Your task to perform on an android device: turn on showing notifications on the lock screen Image 0: 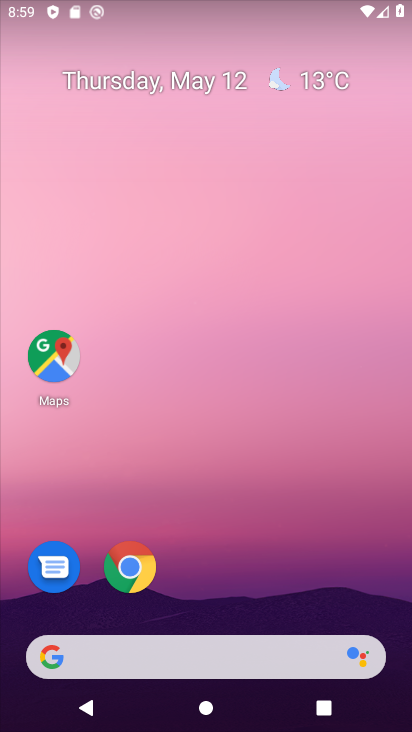
Step 0: press home button
Your task to perform on an android device: turn on showing notifications on the lock screen Image 1: 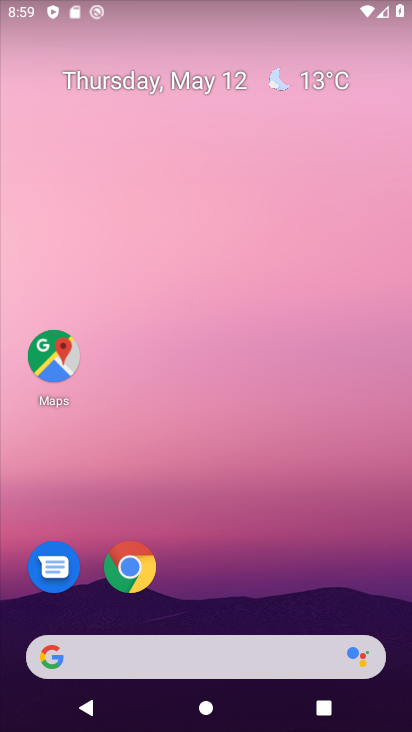
Step 1: drag from (205, 616) to (204, 15)
Your task to perform on an android device: turn on showing notifications on the lock screen Image 2: 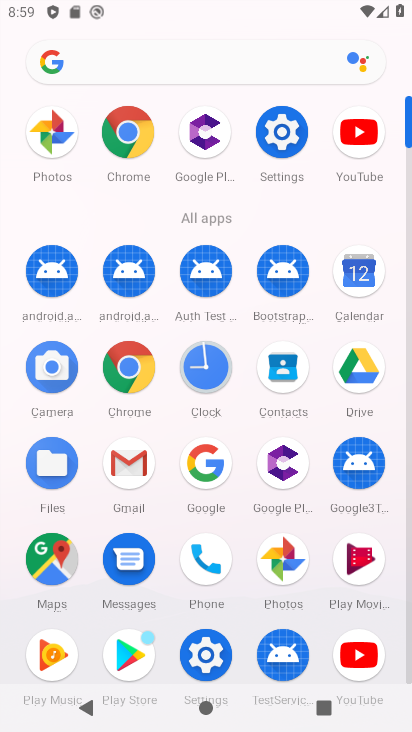
Step 2: click (276, 127)
Your task to perform on an android device: turn on showing notifications on the lock screen Image 3: 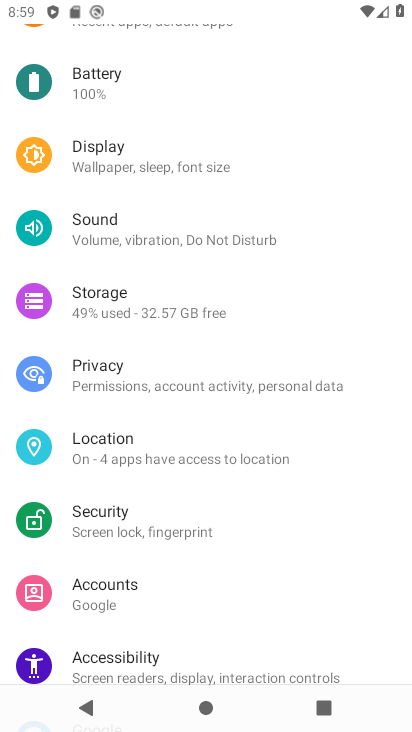
Step 3: drag from (148, 124) to (157, 517)
Your task to perform on an android device: turn on showing notifications on the lock screen Image 4: 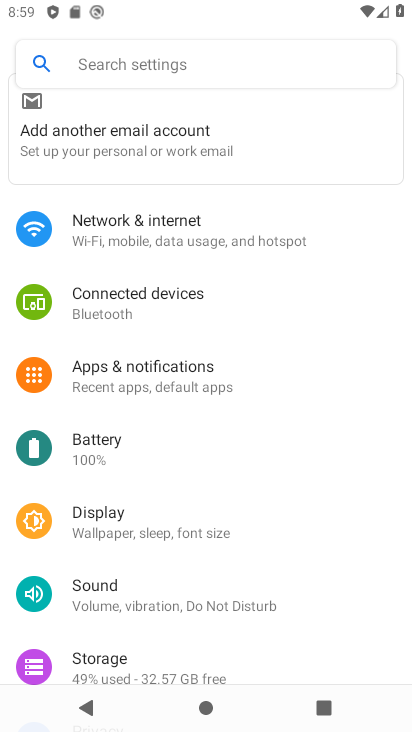
Step 4: click (221, 366)
Your task to perform on an android device: turn on showing notifications on the lock screen Image 5: 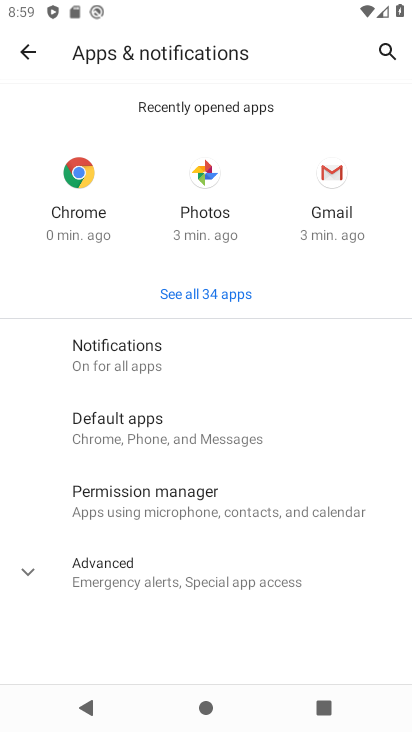
Step 5: click (168, 351)
Your task to perform on an android device: turn on showing notifications on the lock screen Image 6: 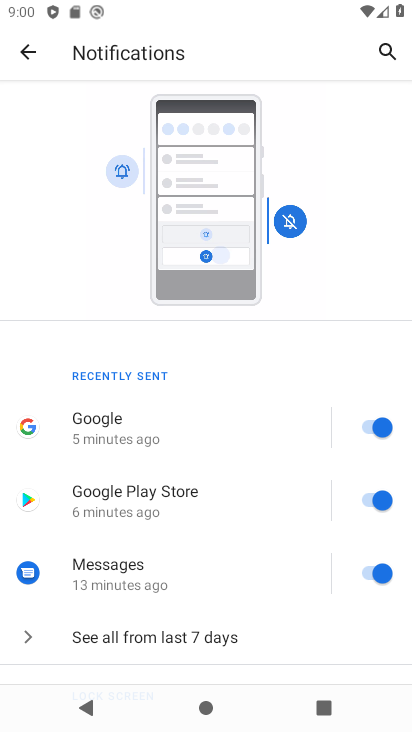
Step 6: drag from (205, 530) to (235, 144)
Your task to perform on an android device: turn on showing notifications on the lock screen Image 7: 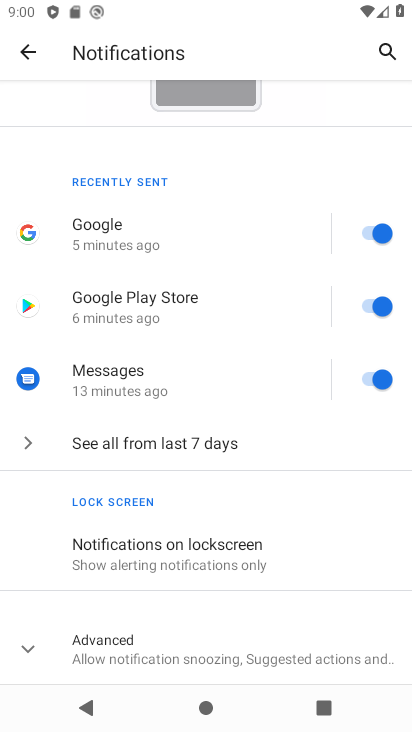
Step 7: click (211, 563)
Your task to perform on an android device: turn on showing notifications on the lock screen Image 8: 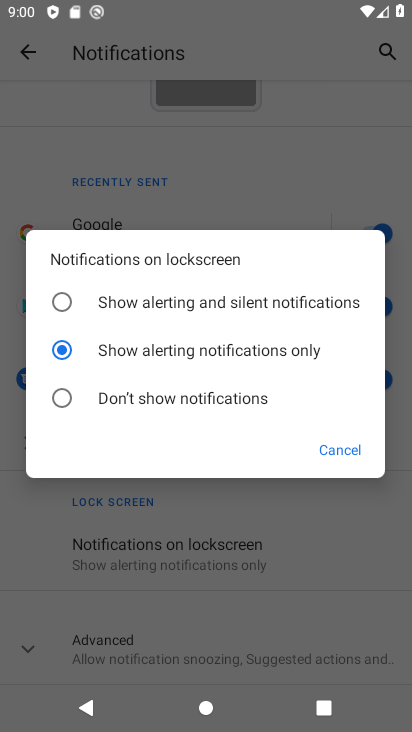
Step 8: click (75, 296)
Your task to perform on an android device: turn on showing notifications on the lock screen Image 9: 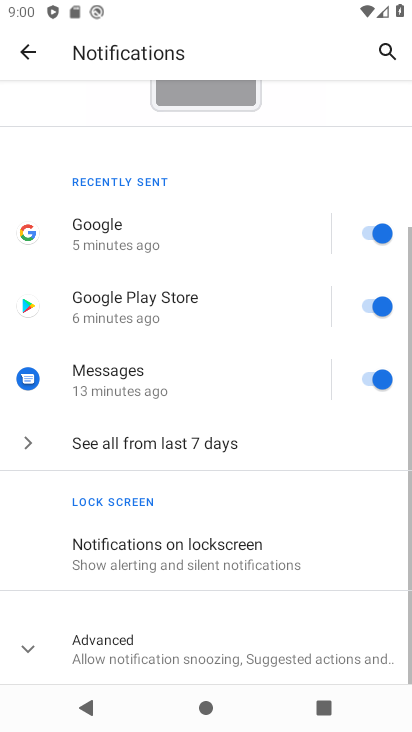
Step 9: task complete